Your task to perform on an android device: turn off location Image 0: 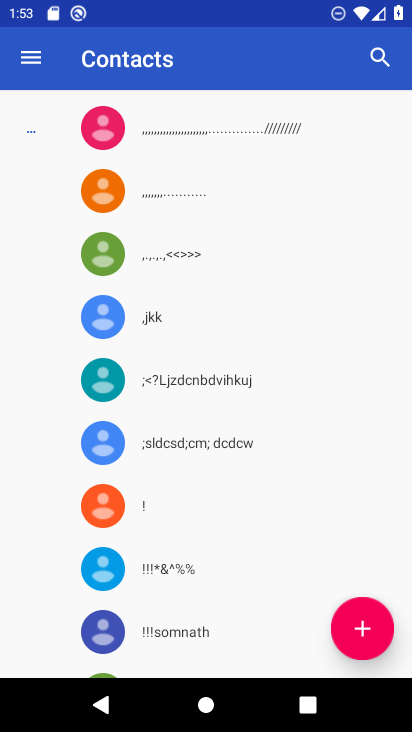
Step 0: press back button
Your task to perform on an android device: turn off location Image 1: 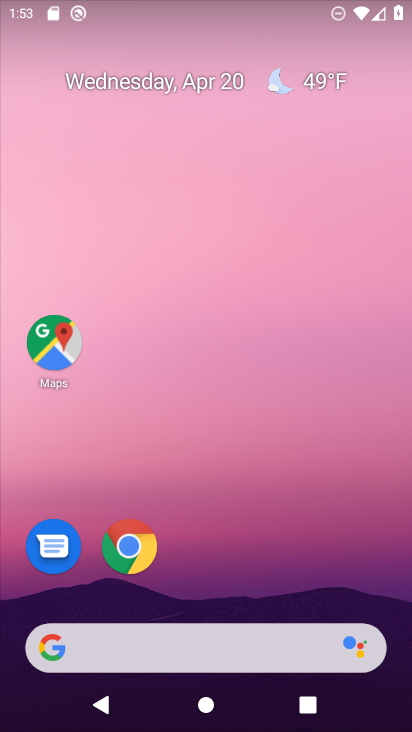
Step 1: drag from (193, 568) to (285, 111)
Your task to perform on an android device: turn off location Image 2: 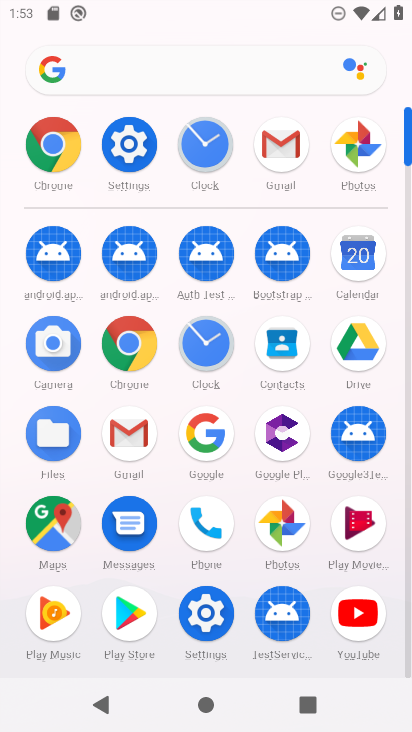
Step 2: click (120, 140)
Your task to perform on an android device: turn off location Image 3: 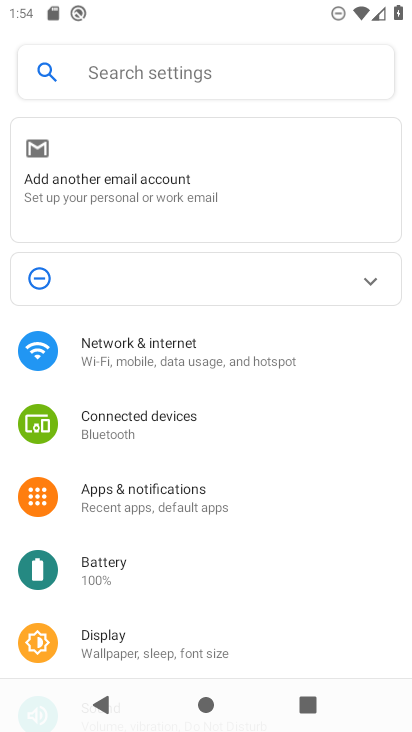
Step 3: drag from (170, 606) to (277, 95)
Your task to perform on an android device: turn off location Image 4: 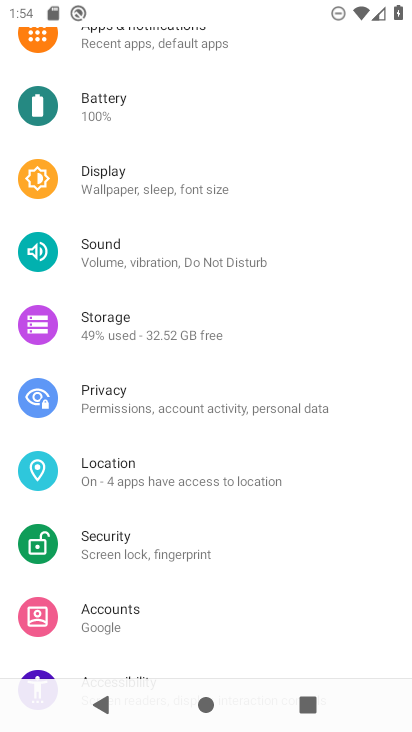
Step 4: click (104, 469)
Your task to perform on an android device: turn off location Image 5: 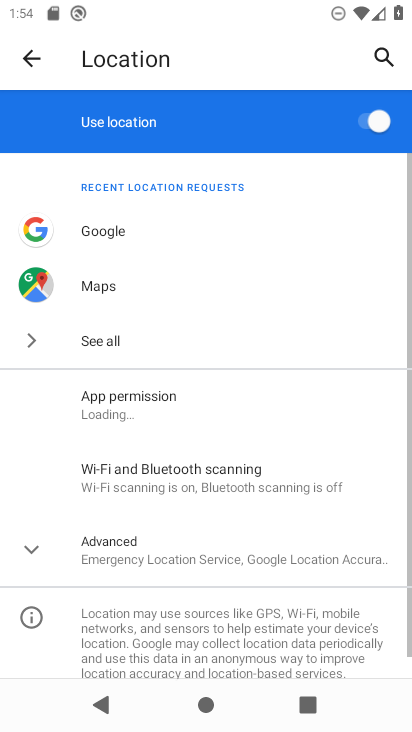
Step 5: click (370, 114)
Your task to perform on an android device: turn off location Image 6: 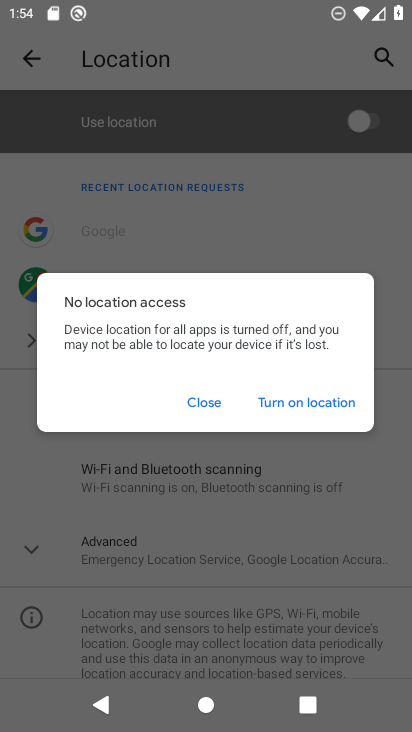
Step 6: task complete